Your task to perform on an android device: Open internet settings Image 0: 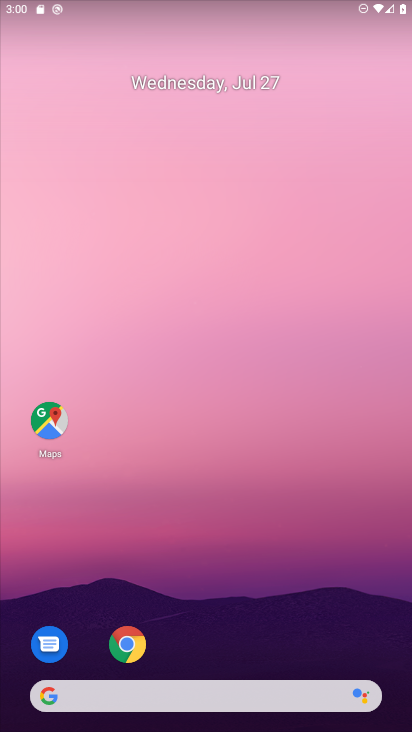
Step 0: drag from (186, 677) to (170, 7)
Your task to perform on an android device: Open internet settings Image 1: 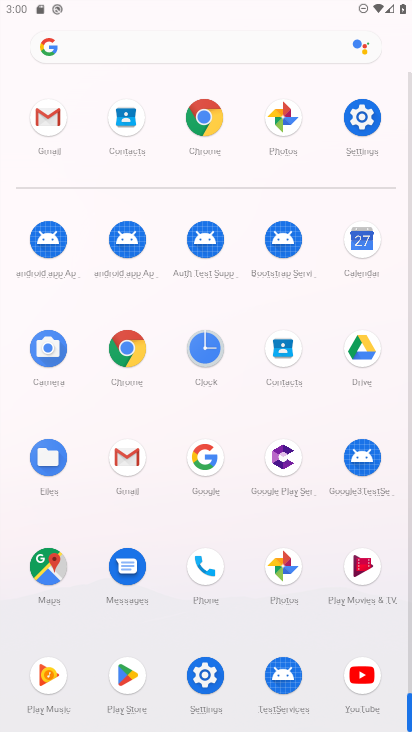
Step 1: click (201, 683)
Your task to perform on an android device: Open internet settings Image 2: 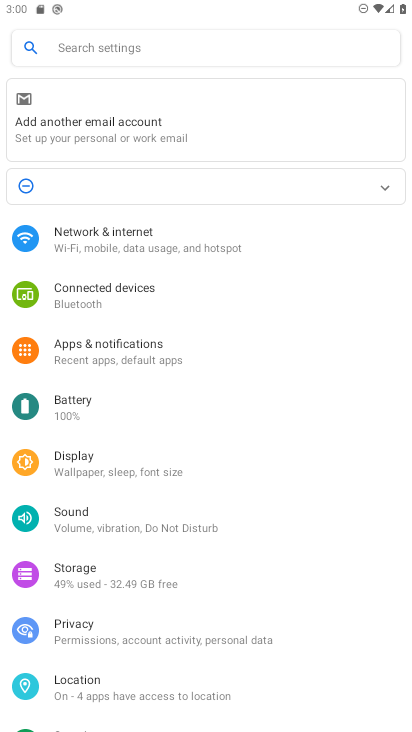
Step 2: click (160, 243)
Your task to perform on an android device: Open internet settings Image 3: 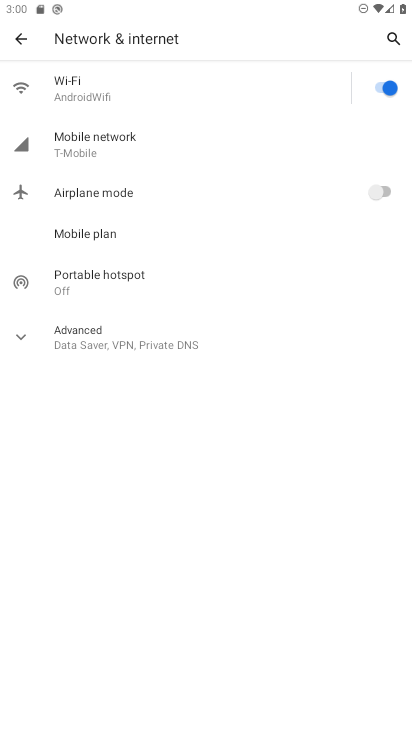
Step 3: task complete